Your task to perform on an android device: How do I get to the nearest IKEA? Image 0: 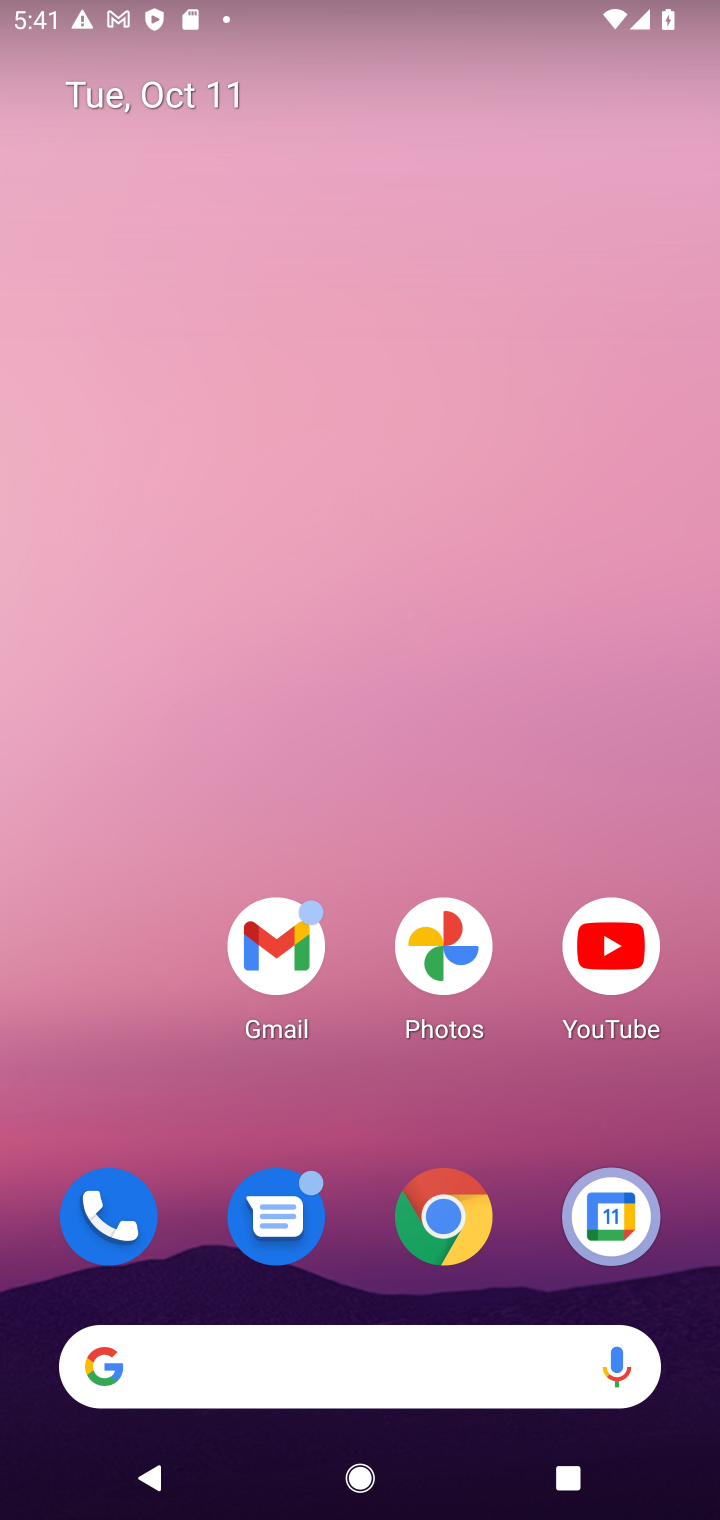
Step 0: click (447, 1222)
Your task to perform on an android device: How do I get to the nearest IKEA? Image 1: 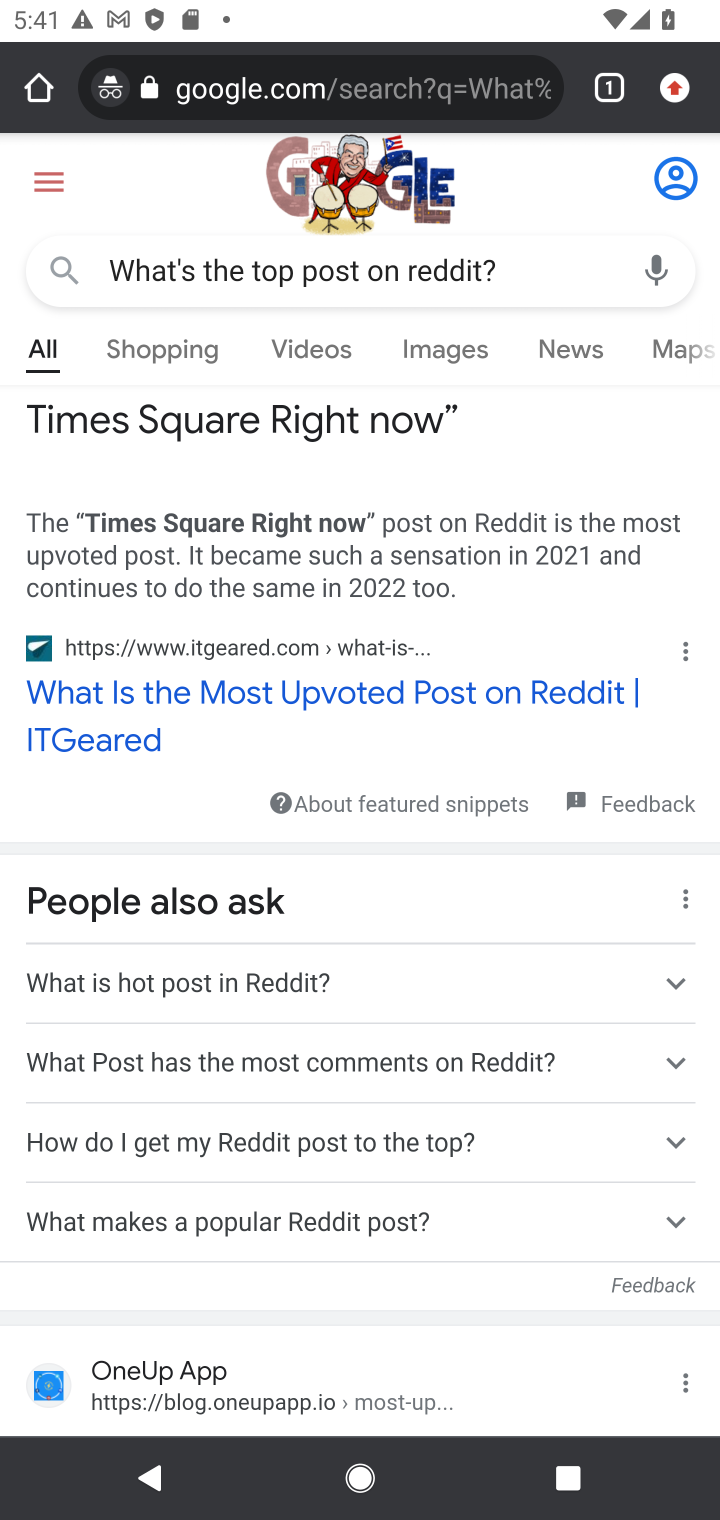
Step 1: click (424, 81)
Your task to perform on an android device: How do I get to the nearest IKEA? Image 2: 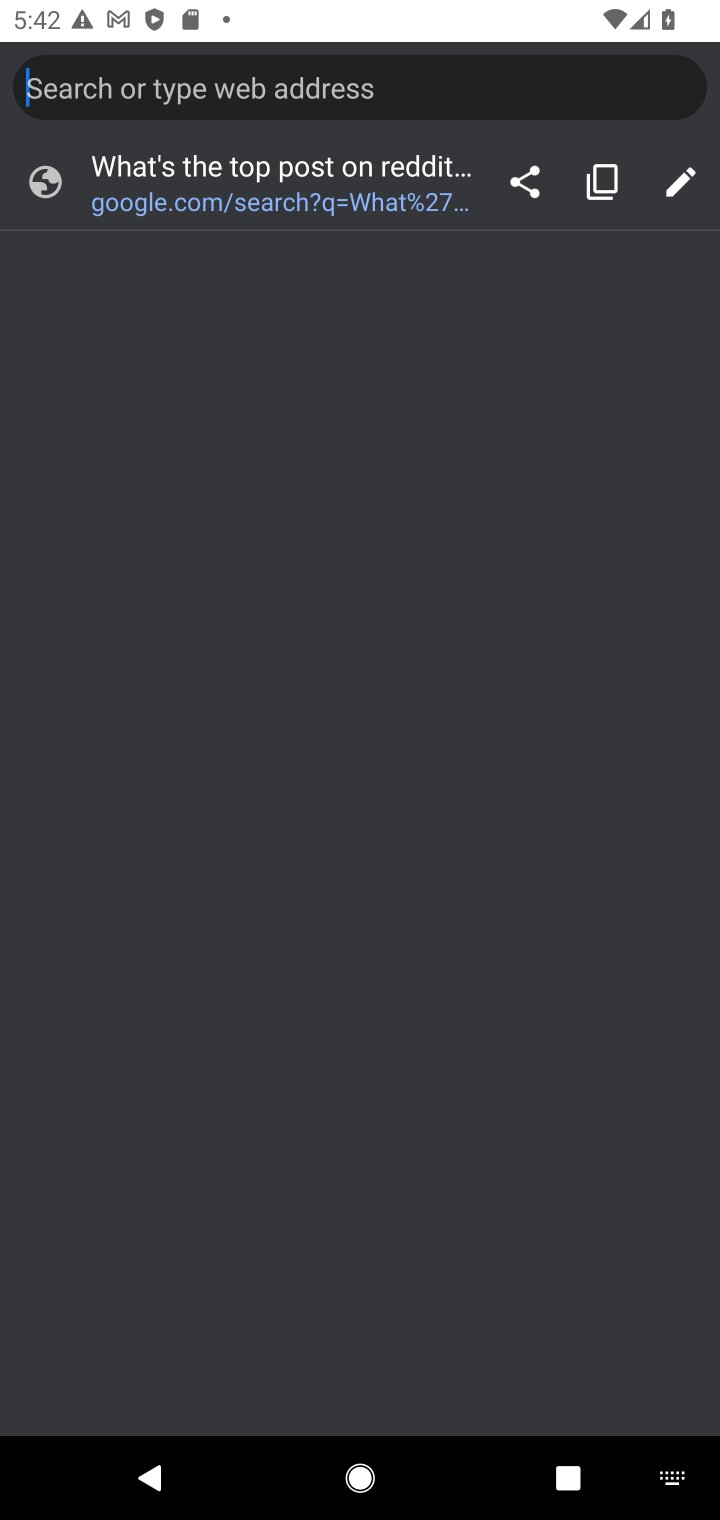
Step 2: type "How do I get to the nearest IKEA?"
Your task to perform on an android device: How do I get to the nearest IKEA? Image 3: 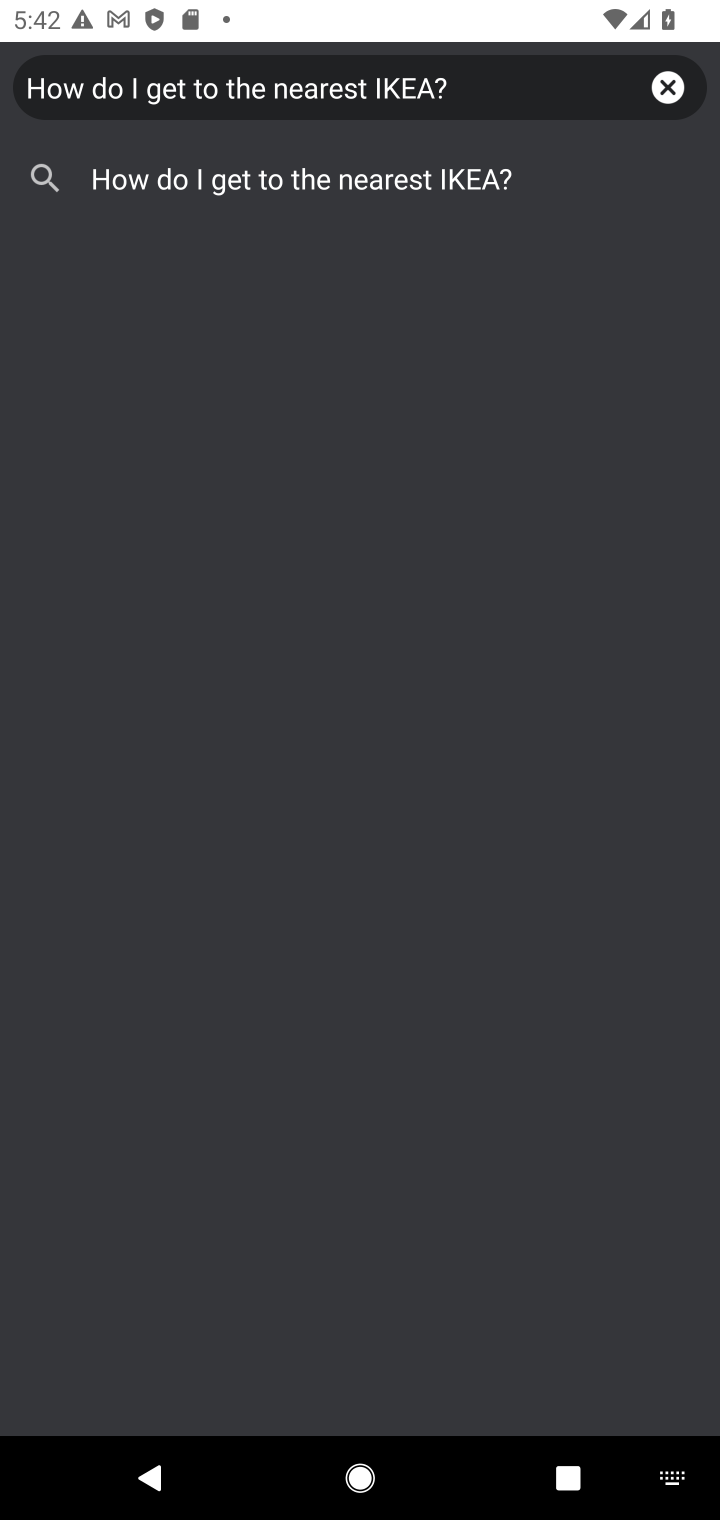
Step 3: click (395, 197)
Your task to perform on an android device: How do I get to the nearest IKEA? Image 4: 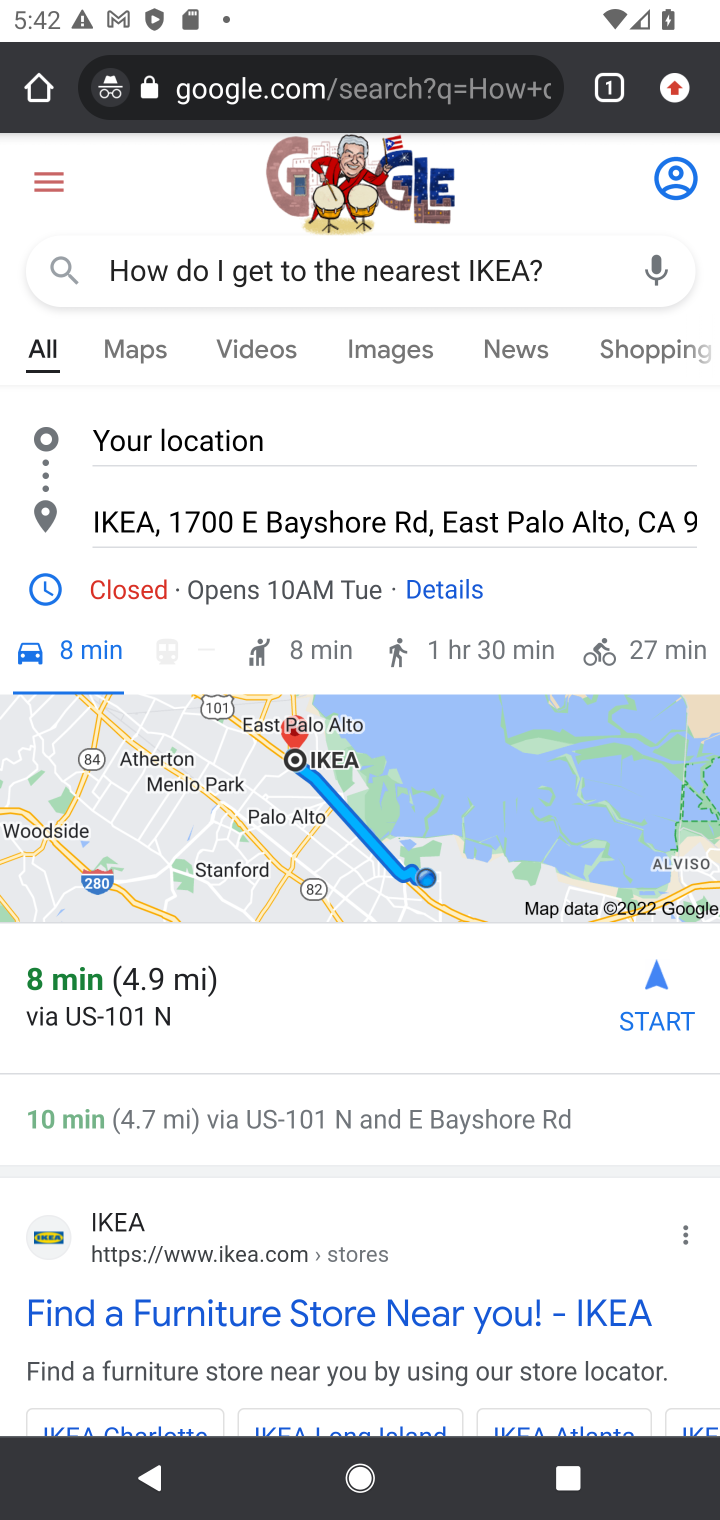
Step 4: task complete